Your task to perform on an android device: toggle translation in the chrome app Image 0: 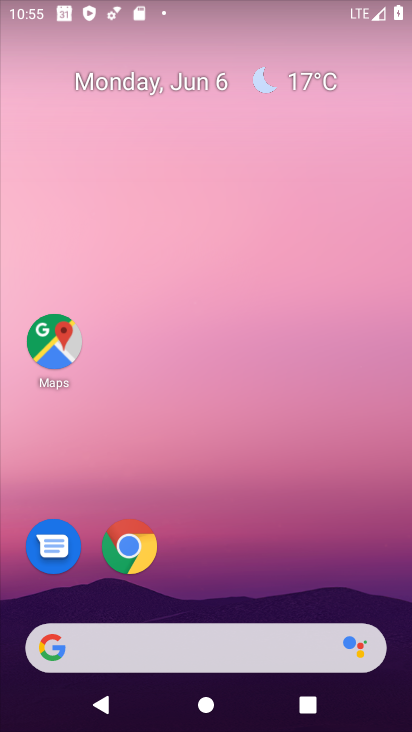
Step 0: click (55, 340)
Your task to perform on an android device: toggle translation in the chrome app Image 1: 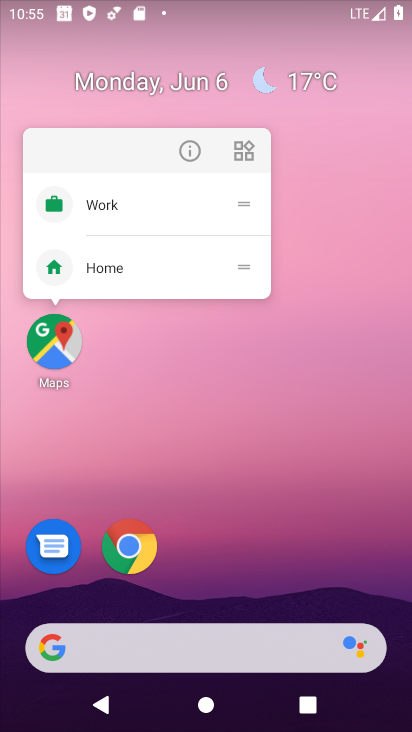
Step 1: click (55, 344)
Your task to perform on an android device: toggle translation in the chrome app Image 2: 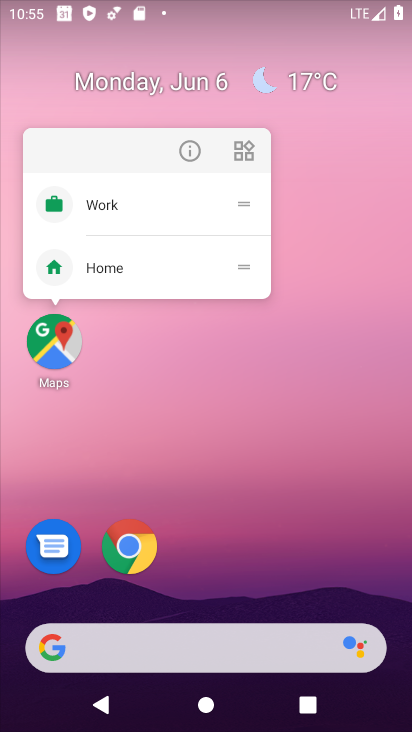
Step 2: click (52, 351)
Your task to perform on an android device: toggle translation in the chrome app Image 3: 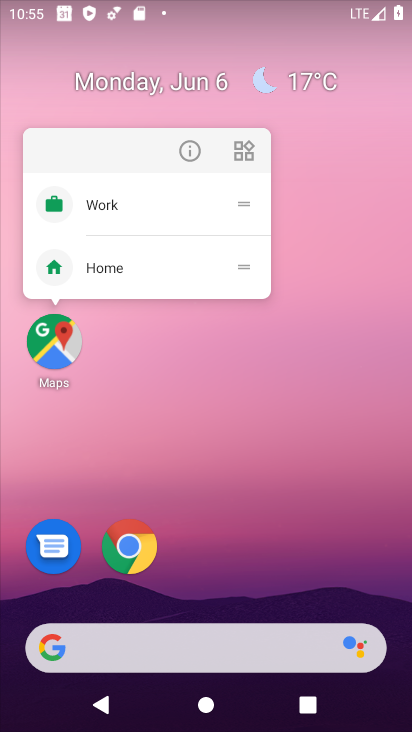
Step 3: click (142, 400)
Your task to perform on an android device: toggle translation in the chrome app Image 4: 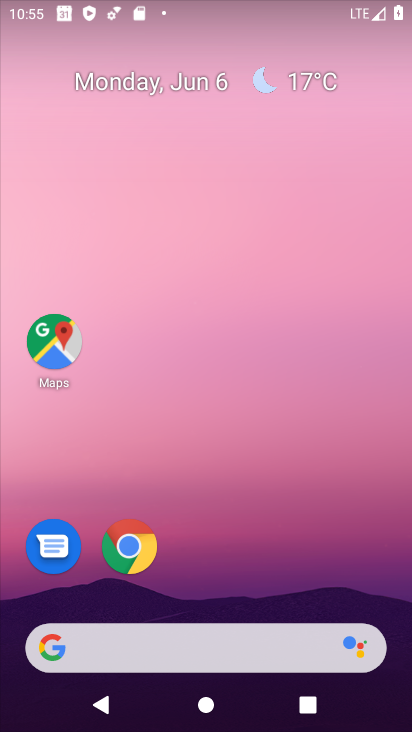
Step 4: drag from (336, 567) to (341, 149)
Your task to perform on an android device: toggle translation in the chrome app Image 5: 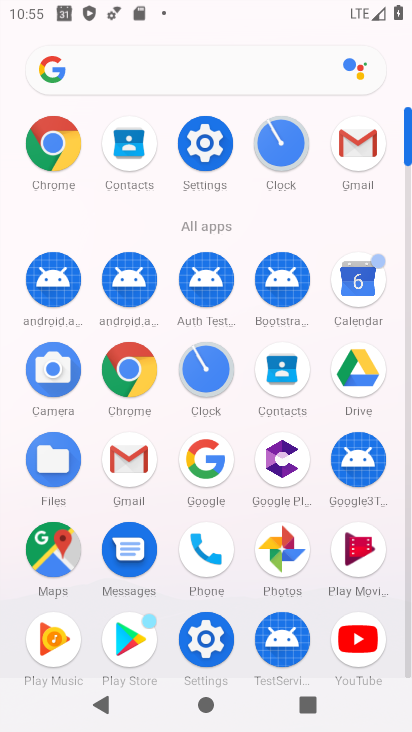
Step 5: click (55, 551)
Your task to perform on an android device: toggle translation in the chrome app Image 6: 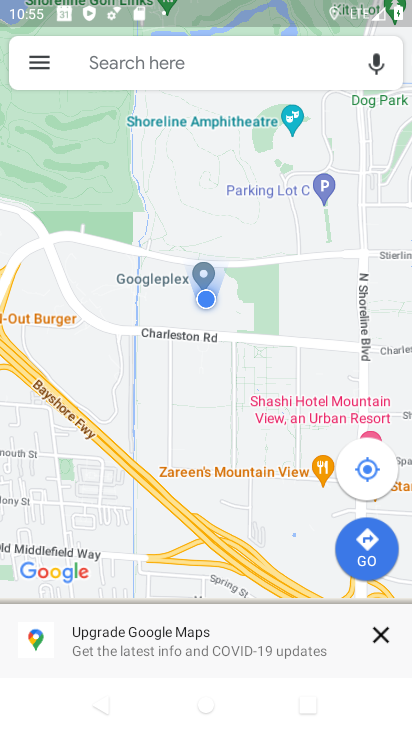
Step 6: press home button
Your task to perform on an android device: toggle translation in the chrome app Image 7: 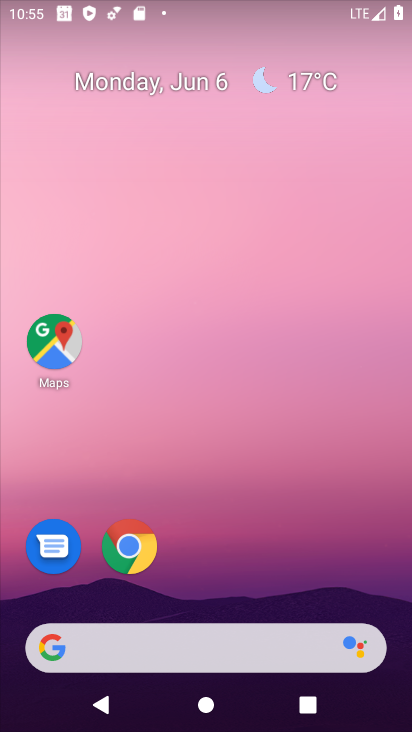
Step 7: drag from (279, 585) to (279, 179)
Your task to perform on an android device: toggle translation in the chrome app Image 8: 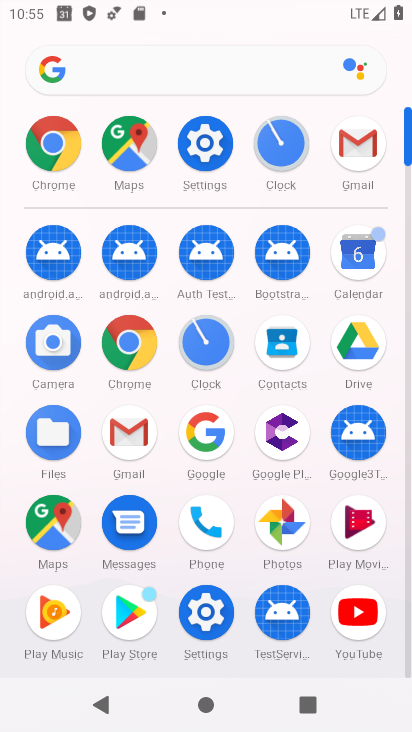
Step 8: click (129, 347)
Your task to perform on an android device: toggle translation in the chrome app Image 9: 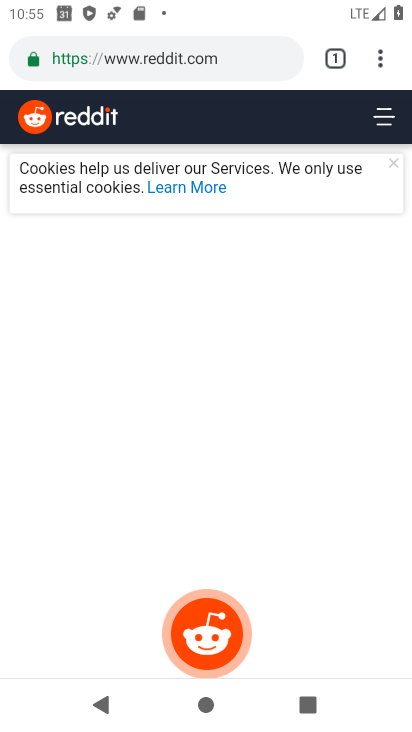
Step 9: drag from (387, 53) to (232, 568)
Your task to perform on an android device: toggle translation in the chrome app Image 10: 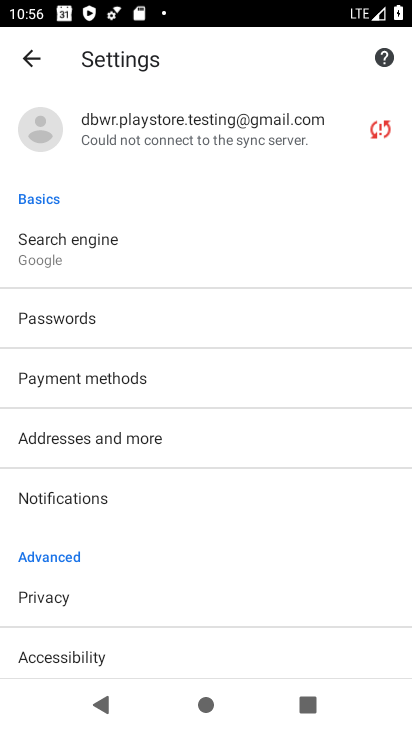
Step 10: drag from (136, 607) to (179, 175)
Your task to perform on an android device: toggle translation in the chrome app Image 11: 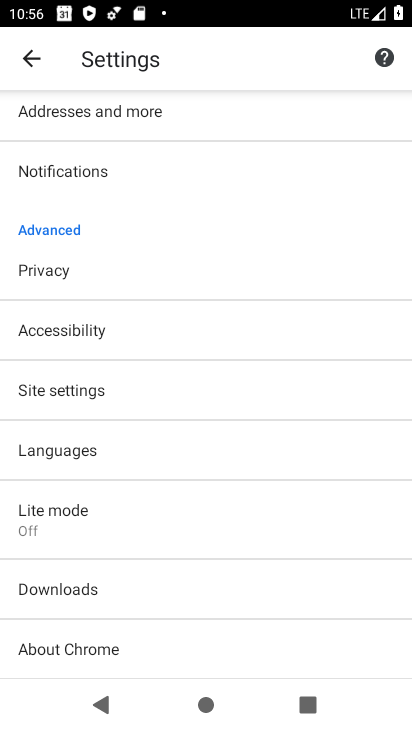
Step 11: click (85, 451)
Your task to perform on an android device: toggle translation in the chrome app Image 12: 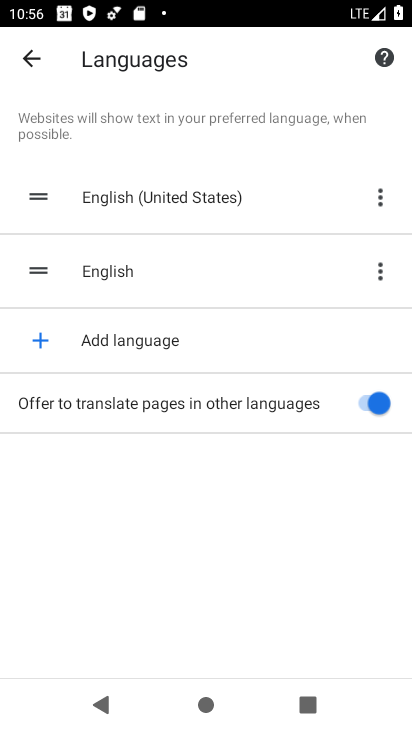
Step 12: click (364, 401)
Your task to perform on an android device: toggle translation in the chrome app Image 13: 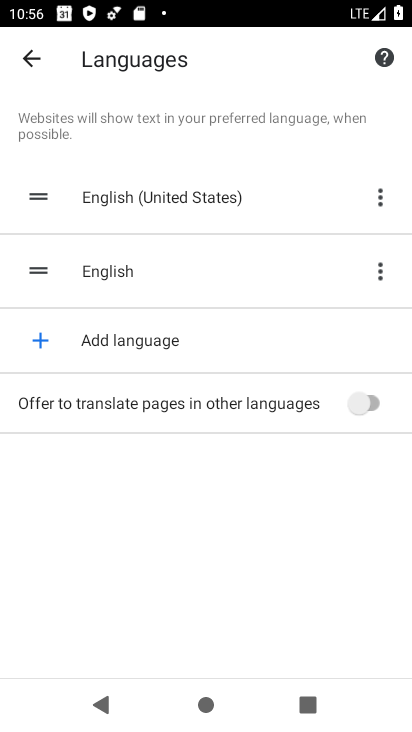
Step 13: task complete